Your task to perform on an android device: Do I have any events today? Image 0: 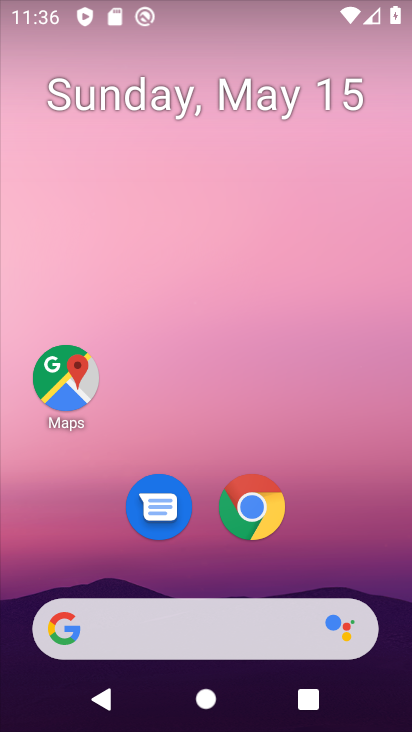
Step 0: drag from (344, 539) to (325, 55)
Your task to perform on an android device: Do I have any events today? Image 1: 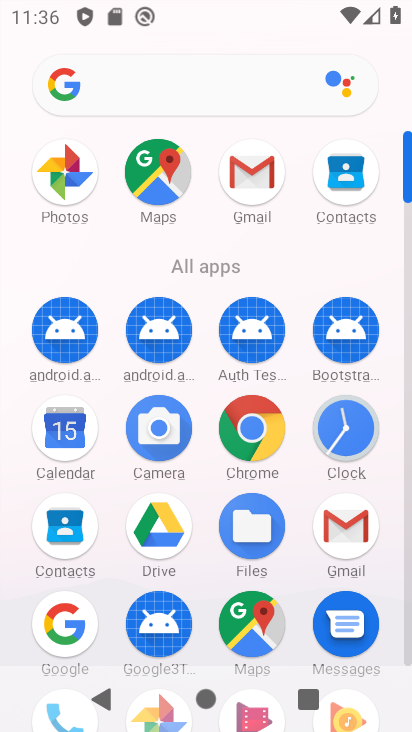
Step 1: click (72, 438)
Your task to perform on an android device: Do I have any events today? Image 2: 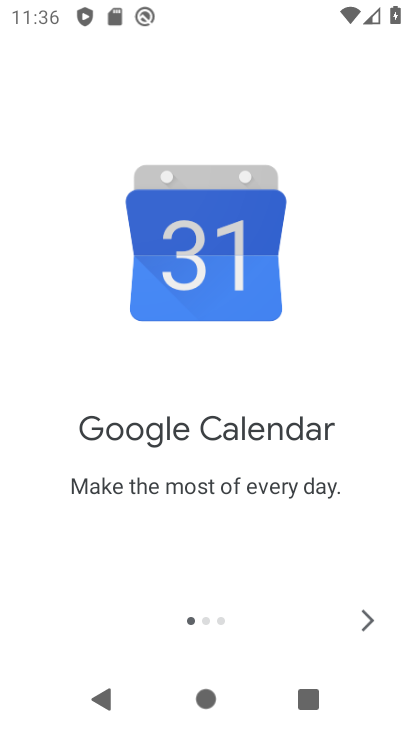
Step 2: click (365, 616)
Your task to perform on an android device: Do I have any events today? Image 3: 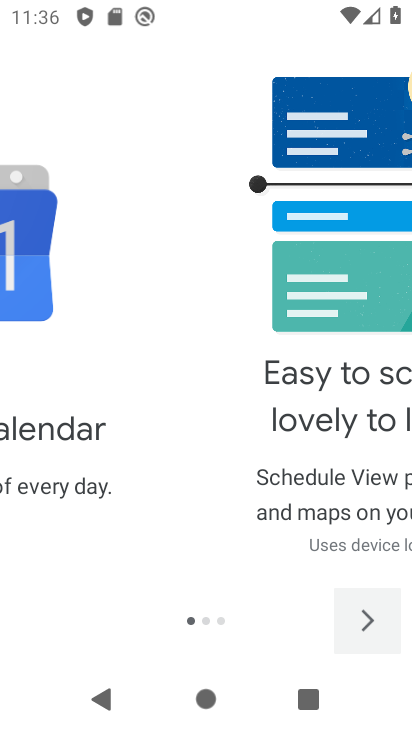
Step 3: click (365, 617)
Your task to perform on an android device: Do I have any events today? Image 4: 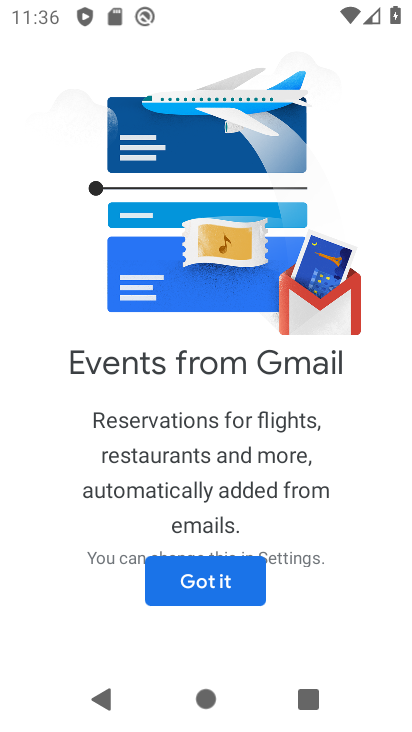
Step 4: click (225, 596)
Your task to perform on an android device: Do I have any events today? Image 5: 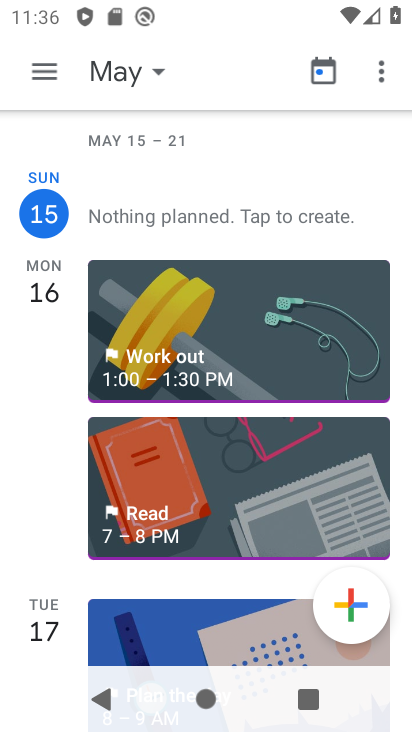
Step 5: click (37, 57)
Your task to perform on an android device: Do I have any events today? Image 6: 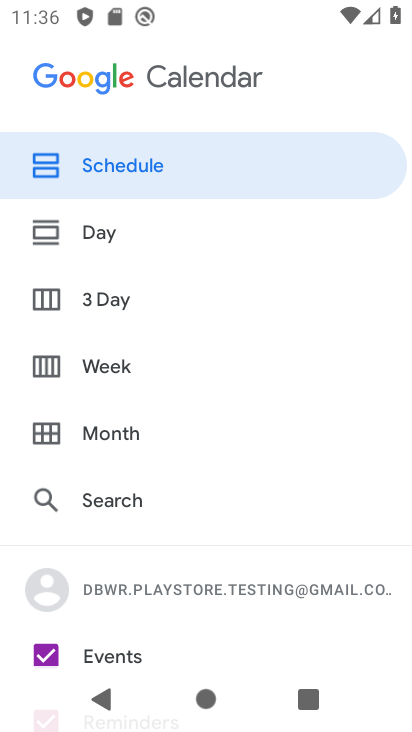
Step 6: click (91, 226)
Your task to perform on an android device: Do I have any events today? Image 7: 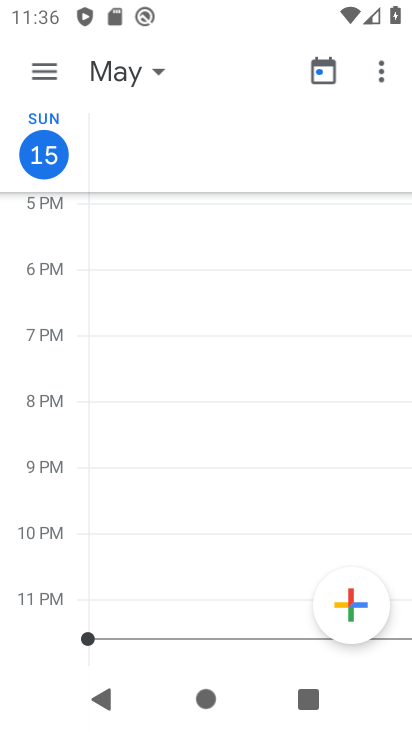
Step 7: task complete